Your task to perform on an android device: turn on notifications settings in the gmail app Image 0: 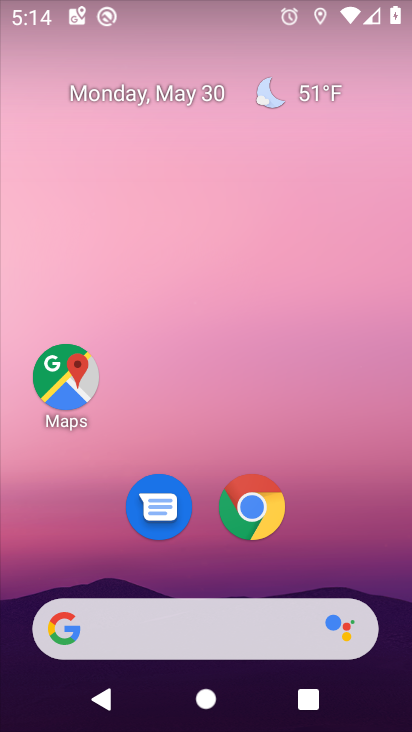
Step 0: drag from (355, 550) to (361, 56)
Your task to perform on an android device: turn on notifications settings in the gmail app Image 1: 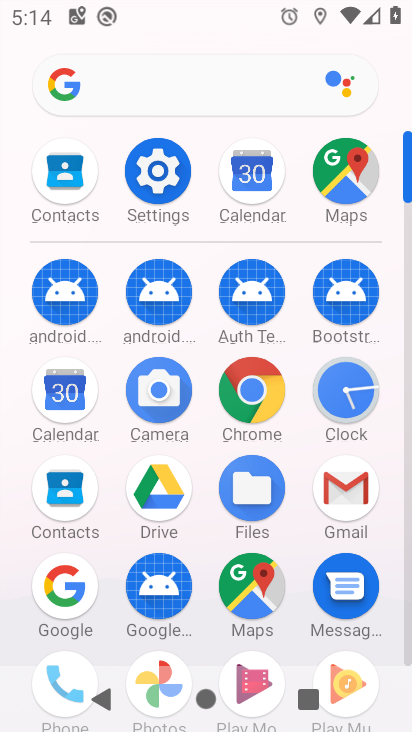
Step 1: click (359, 470)
Your task to perform on an android device: turn on notifications settings in the gmail app Image 2: 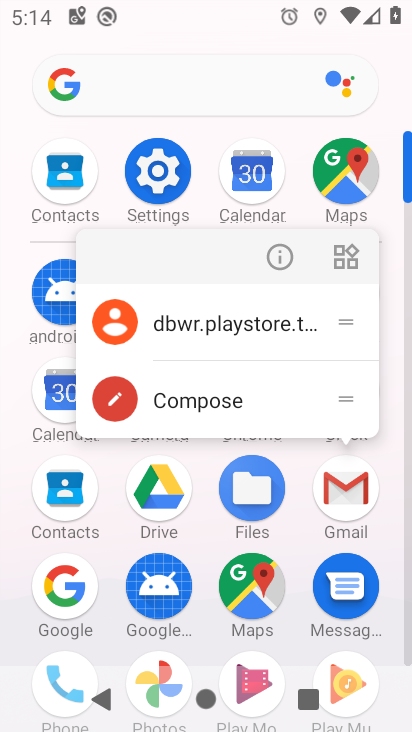
Step 2: click (284, 255)
Your task to perform on an android device: turn on notifications settings in the gmail app Image 3: 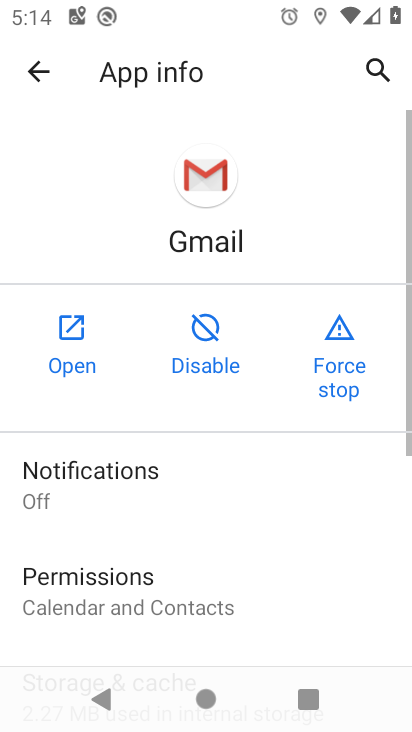
Step 3: click (153, 471)
Your task to perform on an android device: turn on notifications settings in the gmail app Image 4: 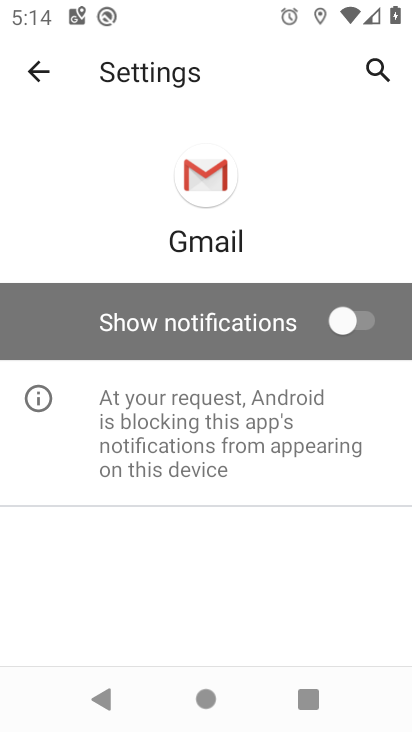
Step 4: click (255, 342)
Your task to perform on an android device: turn on notifications settings in the gmail app Image 5: 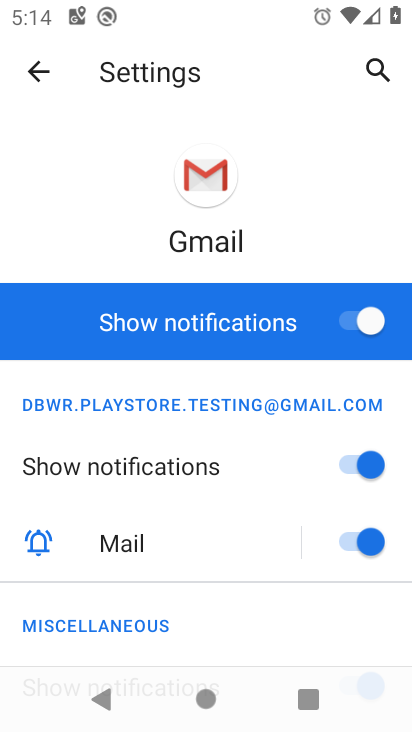
Step 5: task complete